Your task to perform on an android device: Is it going to rain this weekend? Image 0: 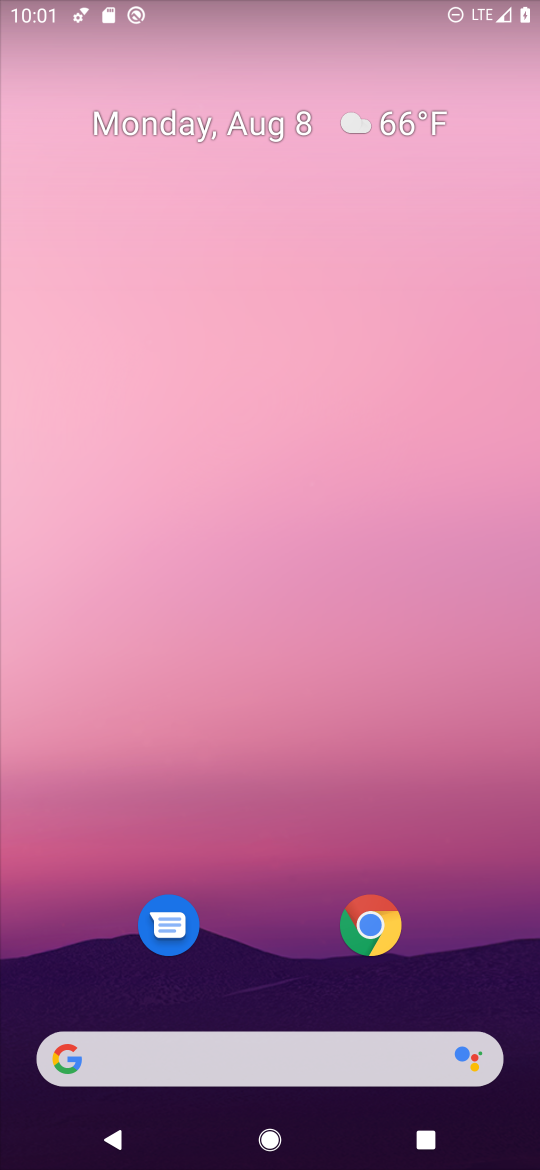
Step 0: click (406, 119)
Your task to perform on an android device: Is it going to rain this weekend? Image 1: 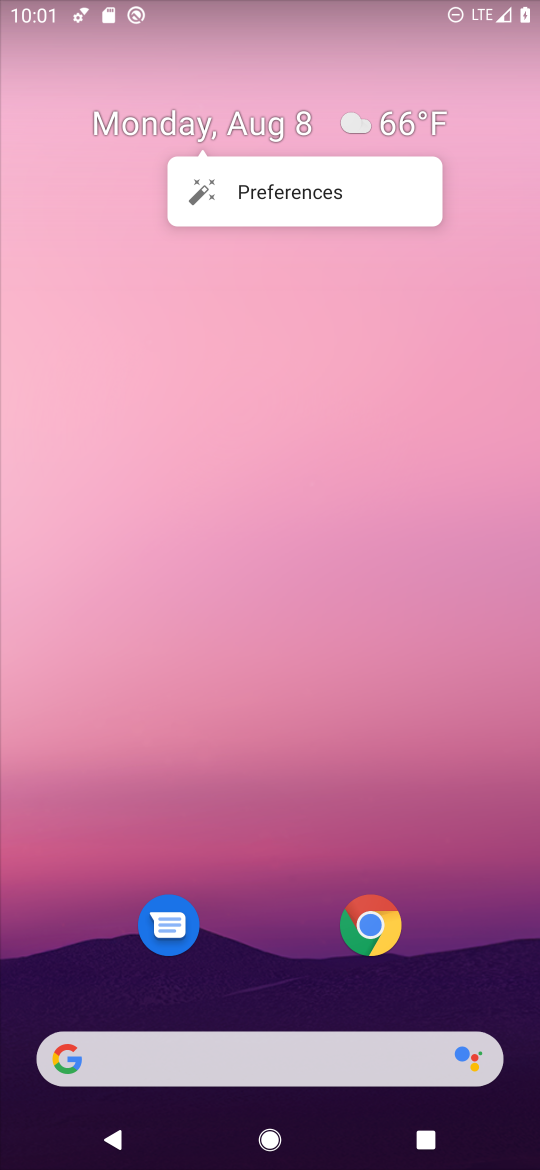
Step 1: click (378, 139)
Your task to perform on an android device: Is it going to rain this weekend? Image 2: 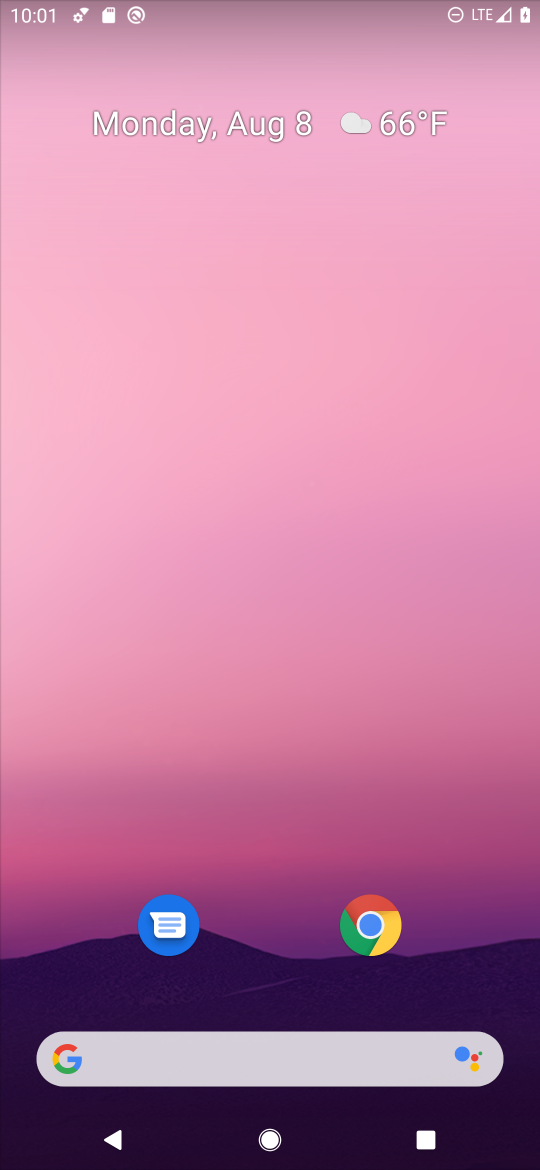
Step 2: click (399, 130)
Your task to perform on an android device: Is it going to rain this weekend? Image 3: 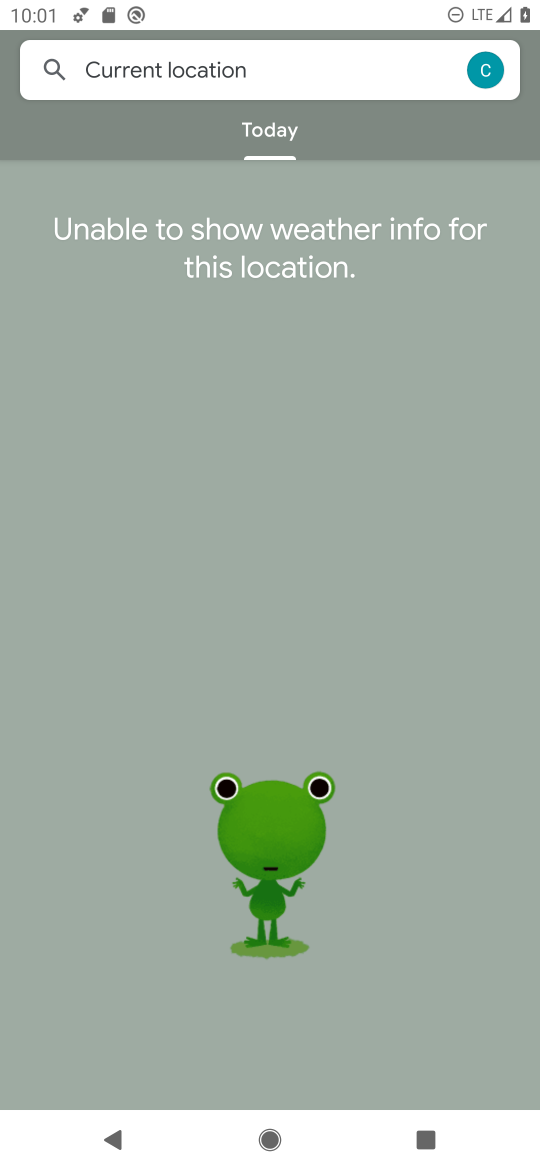
Step 3: task complete